Your task to perform on an android device: Go to Amazon Image 0: 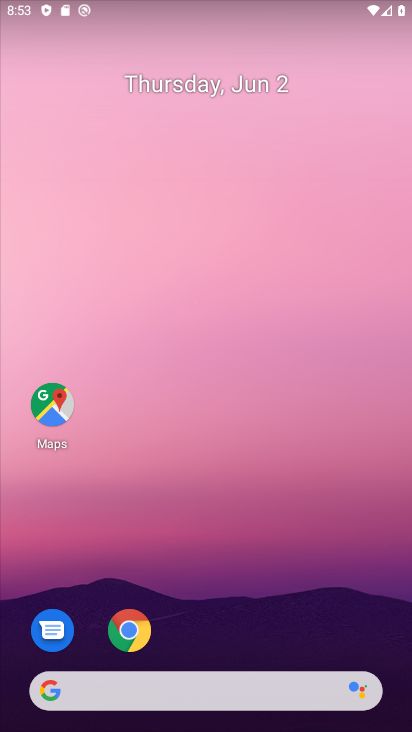
Step 0: click (126, 629)
Your task to perform on an android device: Go to Amazon Image 1: 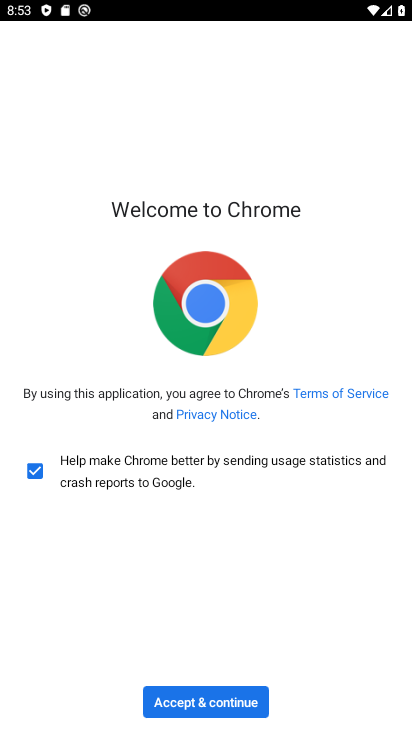
Step 1: click (195, 697)
Your task to perform on an android device: Go to Amazon Image 2: 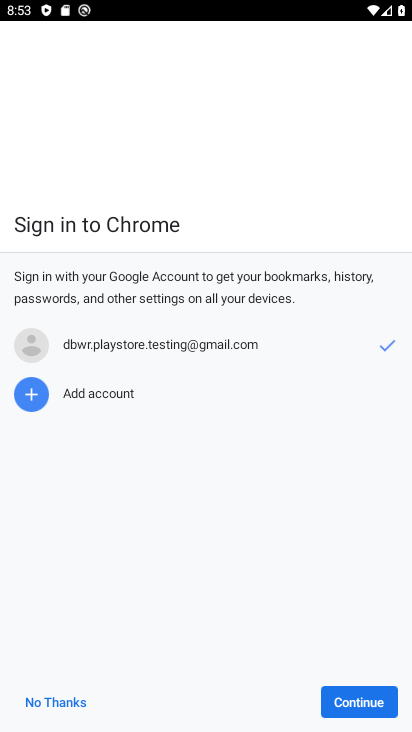
Step 2: click (344, 698)
Your task to perform on an android device: Go to Amazon Image 3: 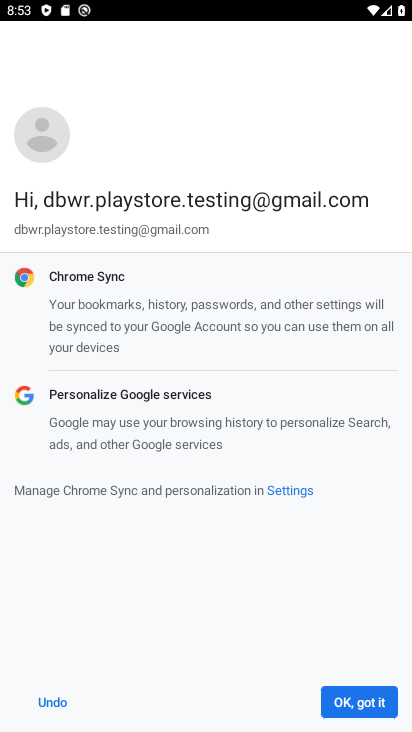
Step 3: click (342, 698)
Your task to perform on an android device: Go to Amazon Image 4: 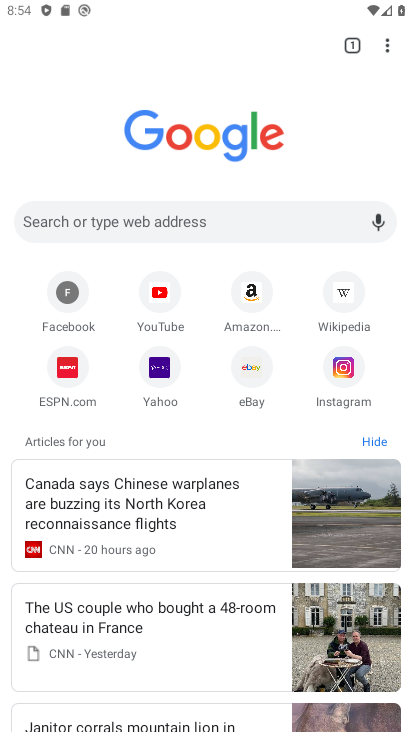
Step 4: click (253, 292)
Your task to perform on an android device: Go to Amazon Image 5: 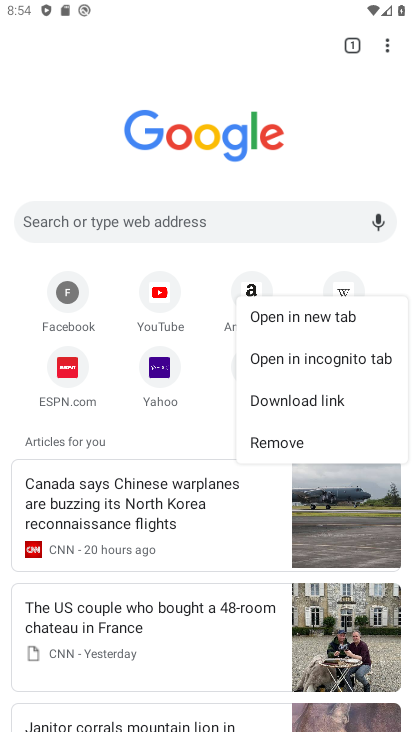
Step 5: click (226, 262)
Your task to perform on an android device: Go to Amazon Image 6: 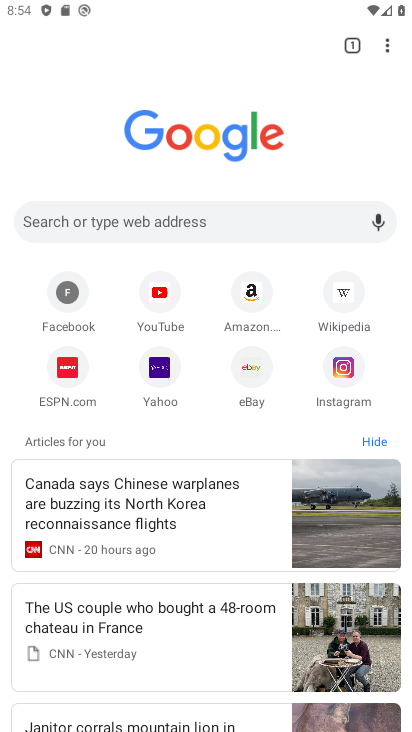
Step 6: click (246, 290)
Your task to perform on an android device: Go to Amazon Image 7: 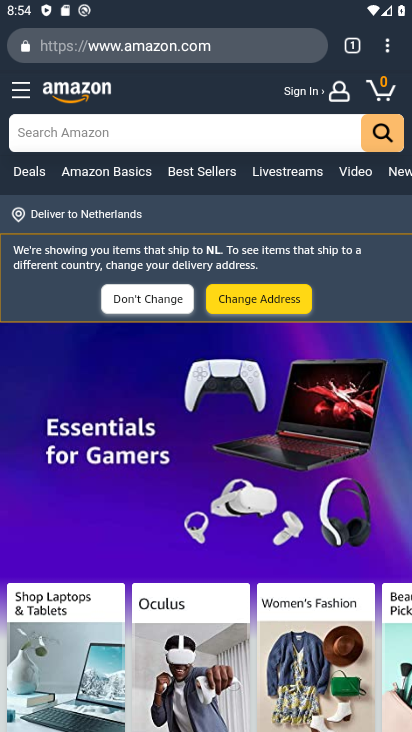
Step 7: task complete